Your task to perform on an android device: Search for seafood restaurants on Google Maps Image 0: 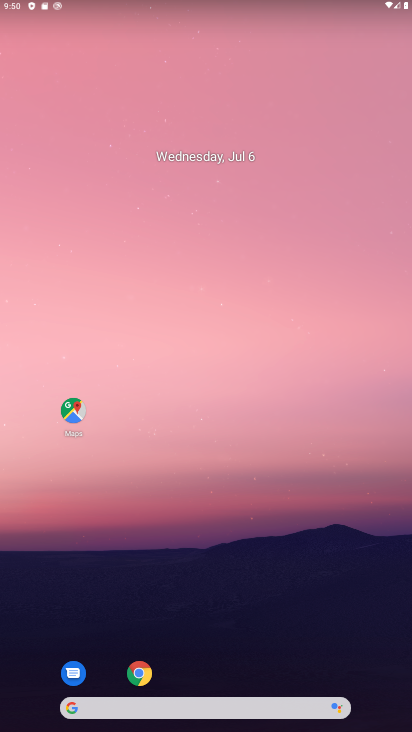
Step 0: click (80, 422)
Your task to perform on an android device: Search for seafood restaurants on Google Maps Image 1: 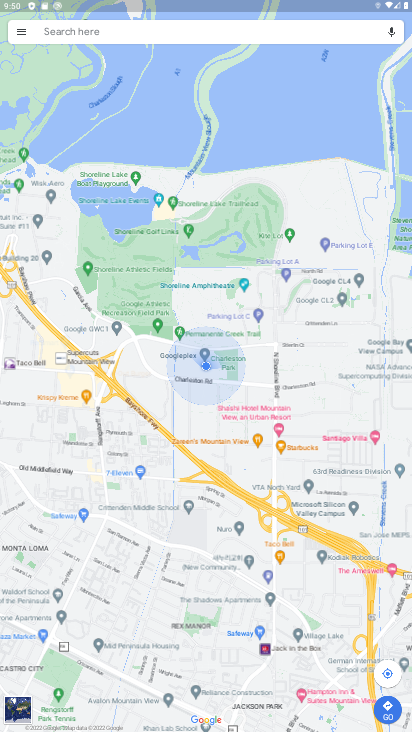
Step 1: click (236, 25)
Your task to perform on an android device: Search for seafood restaurants on Google Maps Image 2: 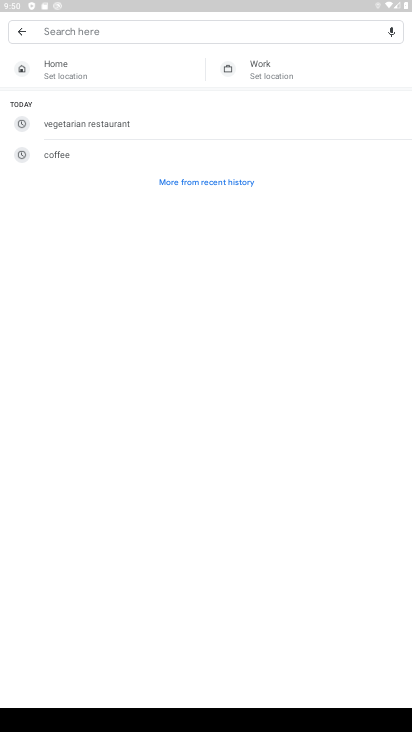
Step 2: type "seafood restaurants"
Your task to perform on an android device: Search for seafood restaurants on Google Maps Image 3: 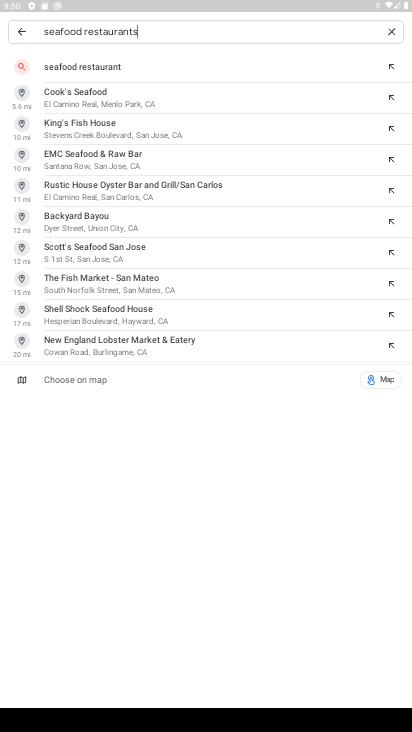
Step 3: click (146, 65)
Your task to perform on an android device: Search for seafood restaurants on Google Maps Image 4: 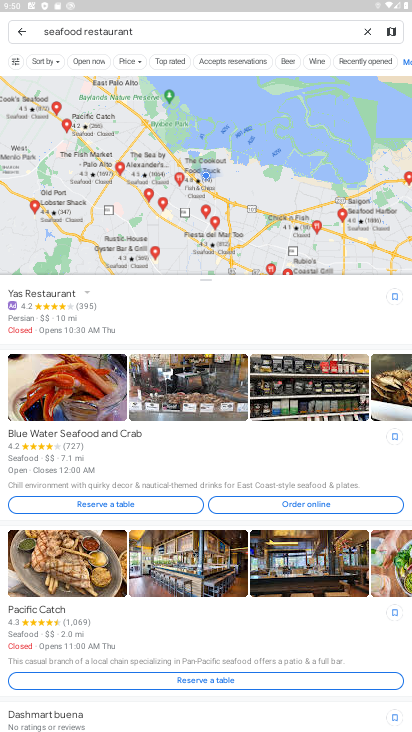
Step 4: task complete